Your task to perform on an android device: Open calendar and show me the fourth week of next month Image 0: 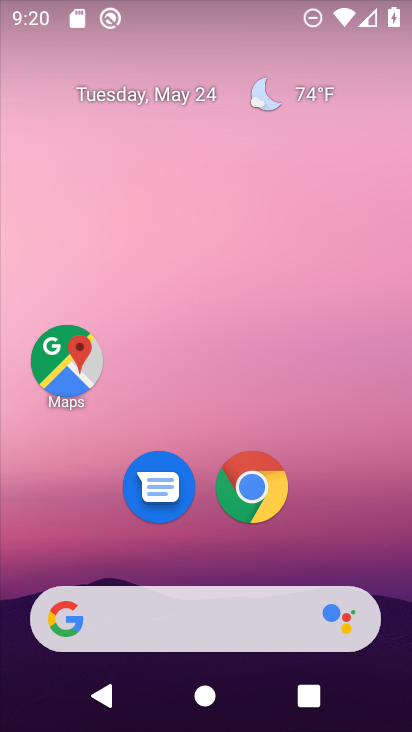
Step 0: drag from (372, 591) to (358, 1)
Your task to perform on an android device: Open calendar and show me the fourth week of next month Image 1: 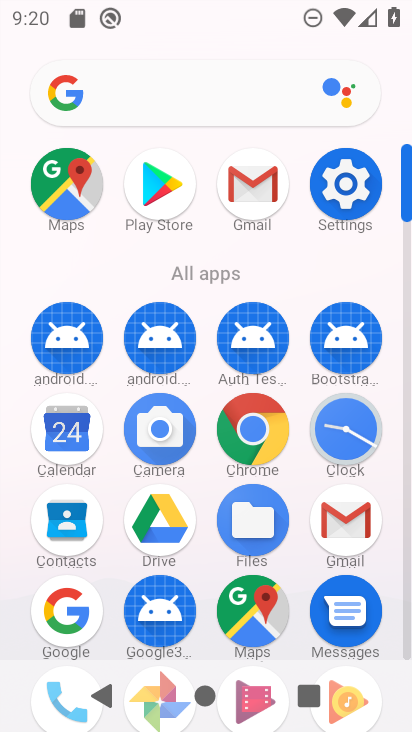
Step 1: click (60, 438)
Your task to perform on an android device: Open calendar and show me the fourth week of next month Image 2: 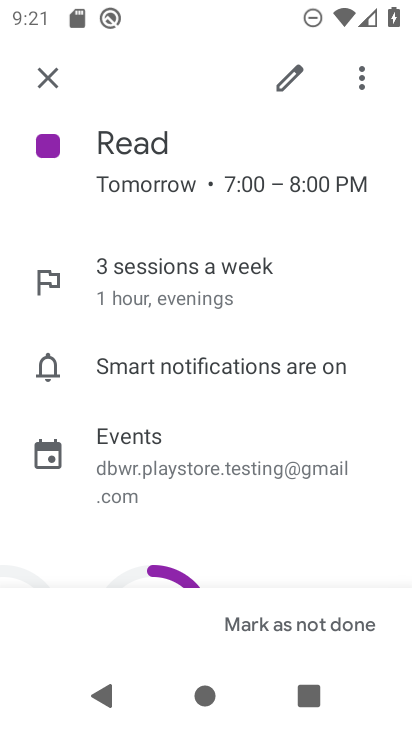
Step 2: click (45, 81)
Your task to perform on an android device: Open calendar and show me the fourth week of next month Image 3: 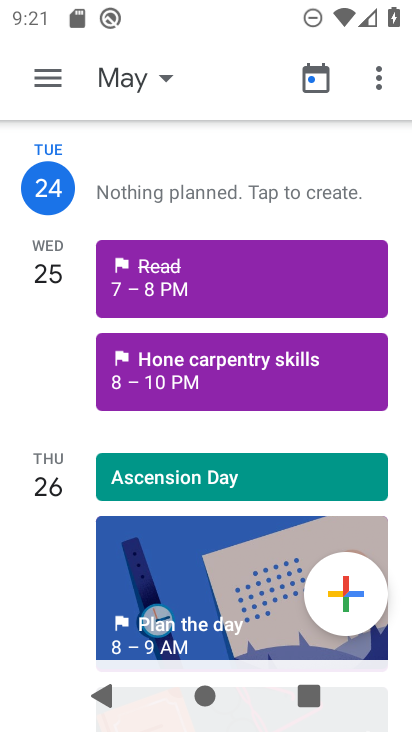
Step 3: click (171, 82)
Your task to perform on an android device: Open calendar and show me the fourth week of next month Image 4: 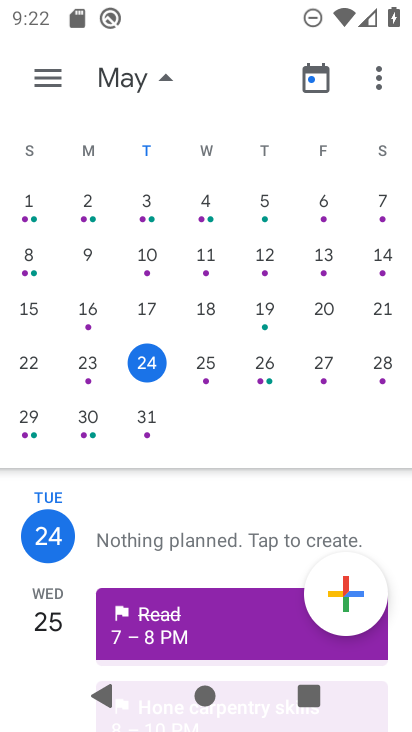
Step 4: drag from (321, 306) to (8, 308)
Your task to perform on an android device: Open calendar and show me the fourth week of next month Image 5: 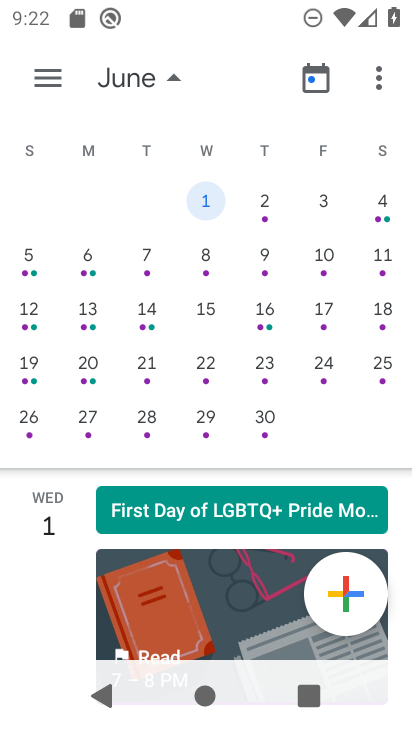
Step 5: click (34, 82)
Your task to perform on an android device: Open calendar and show me the fourth week of next month Image 6: 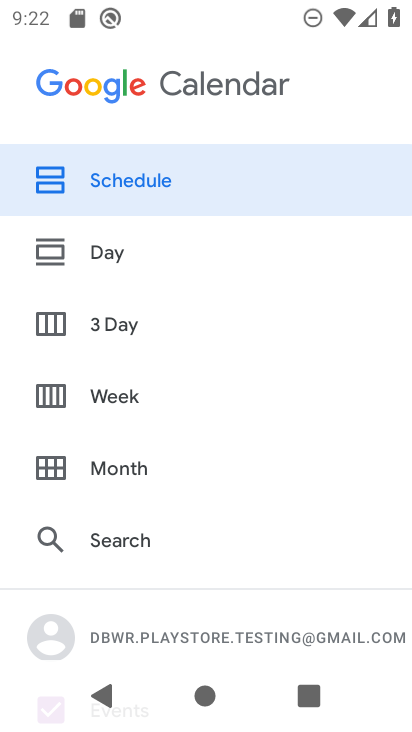
Step 6: click (78, 403)
Your task to perform on an android device: Open calendar and show me the fourth week of next month Image 7: 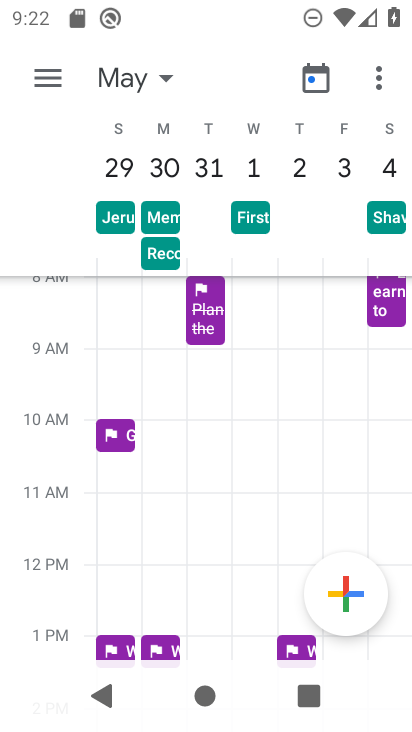
Step 7: task complete